Your task to perform on an android device: delete a single message in the gmail app Image 0: 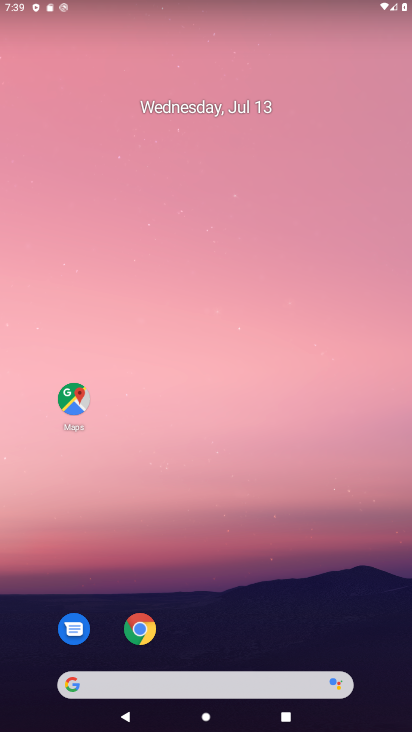
Step 0: drag from (309, 596) to (316, 122)
Your task to perform on an android device: delete a single message in the gmail app Image 1: 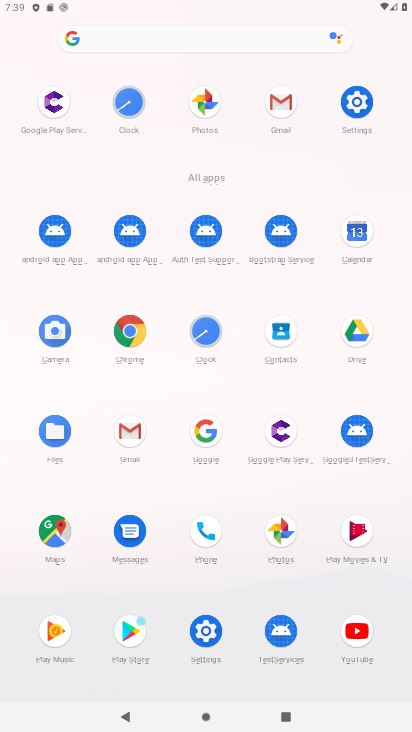
Step 1: click (286, 111)
Your task to perform on an android device: delete a single message in the gmail app Image 2: 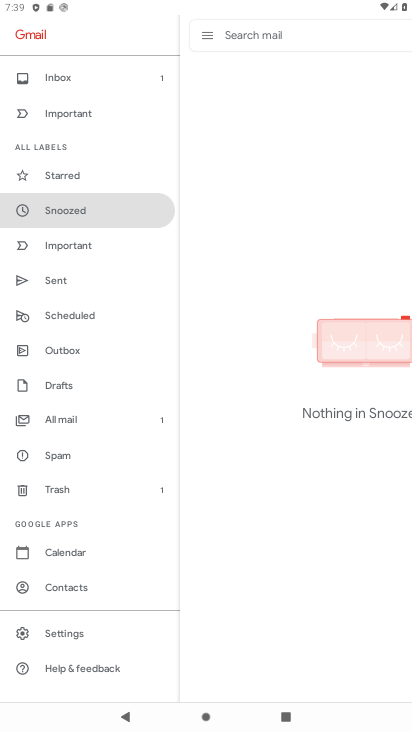
Step 2: click (52, 81)
Your task to perform on an android device: delete a single message in the gmail app Image 3: 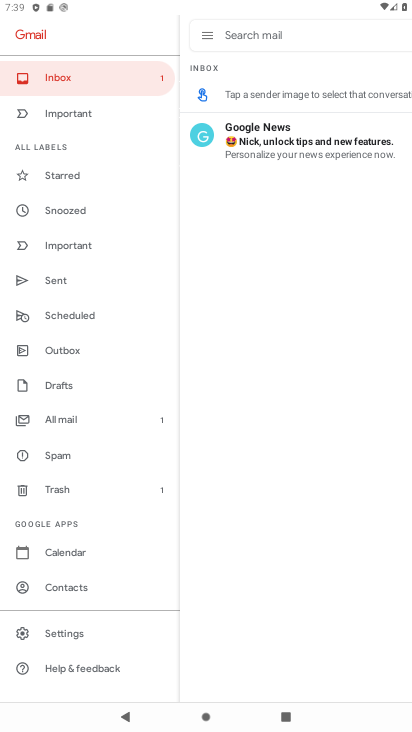
Step 3: click (299, 138)
Your task to perform on an android device: delete a single message in the gmail app Image 4: 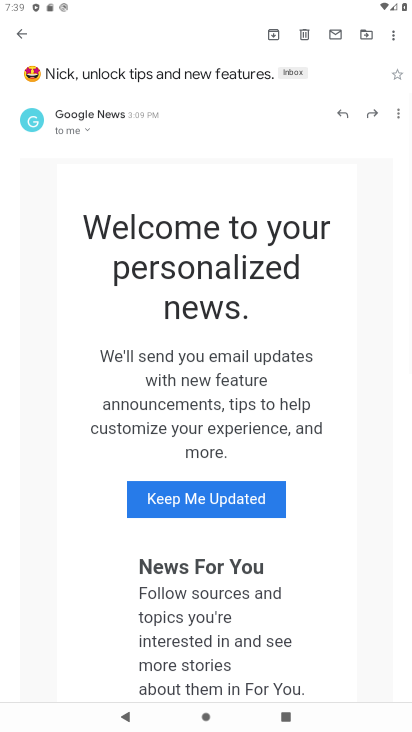
Step 4: click (301, 36)
Your task to perform on an android device: delete a single message in the gmail app Image 5: 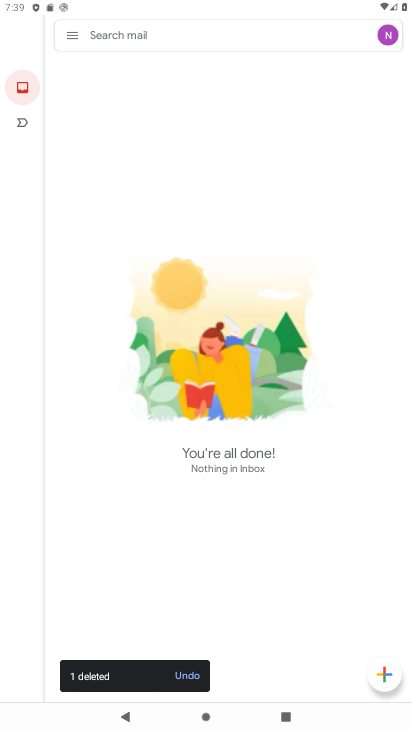
Step 5: task complete